Your task to perform on an android device: When is my next appointment? Image 0: 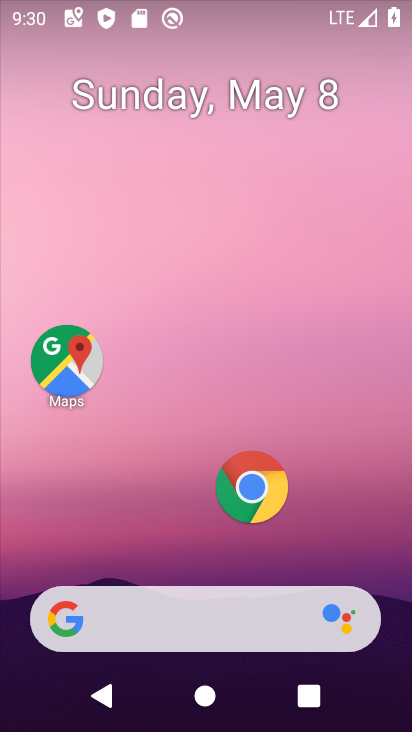
Step 0: drag from (157, 496) to (140, 124)
Your task to perform on an android device: When is my next appointment? Image 1: 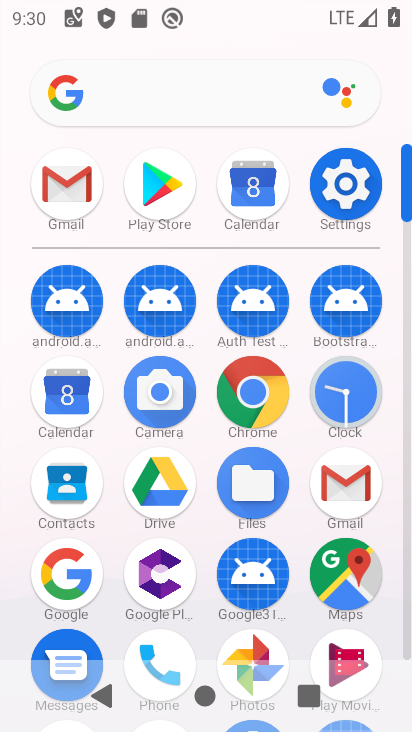
Step 1: click (248, 182)
Your task to perform on an android device: When is my next appointment? Image 2: 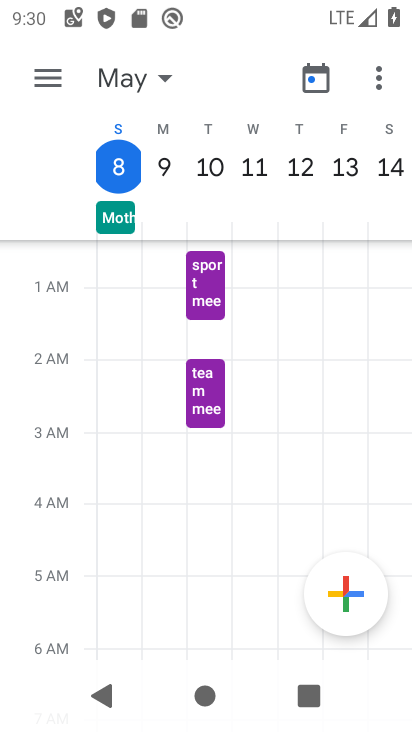
Step 2: click (44, 74)
Your task to perform on an android device: When is my next appointment? Image 3: 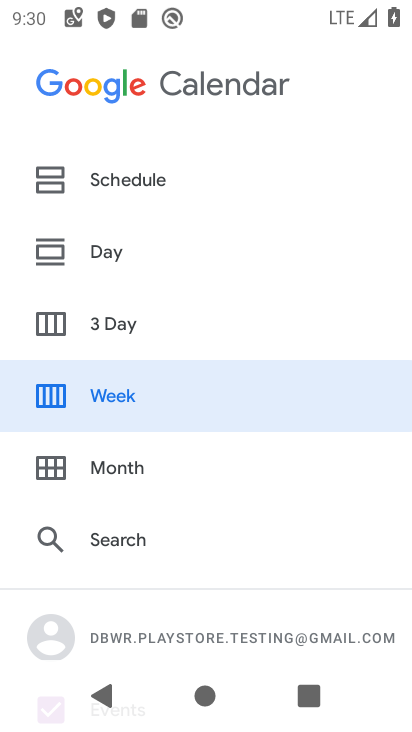
Step 3: click (104, 172)
Your task to perform on an android device: When is my next appointment? Image 4: 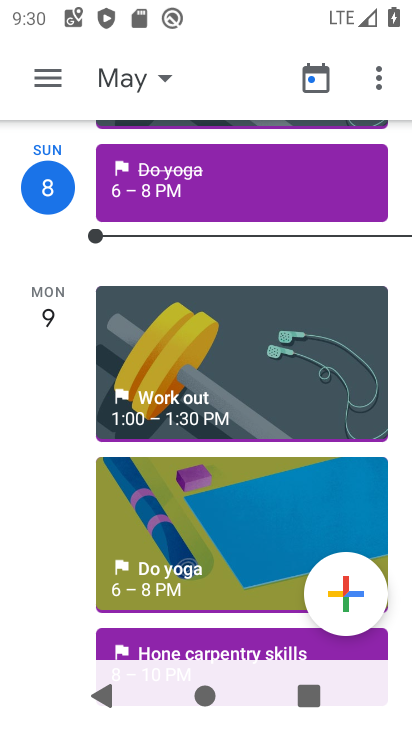
Step 4: task complete